Your task to perform on an android device: When is my next meeting? Image 0: 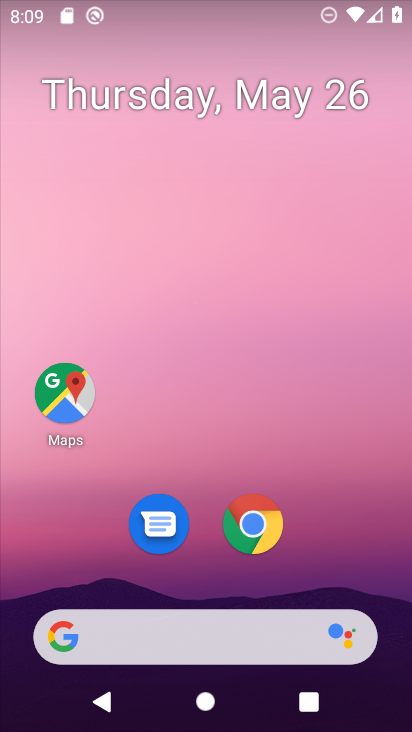
Step 0: drag from (194, 461) to (218, 16)
Your task to perform on an android device: When is my next meeting? Image 1: 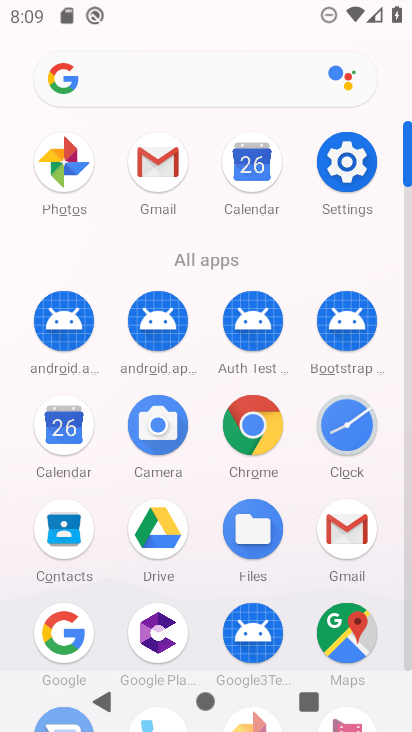
Step 1: click (255, 158)
Your task to perform on an android device: When is my next meeting? Image 2: 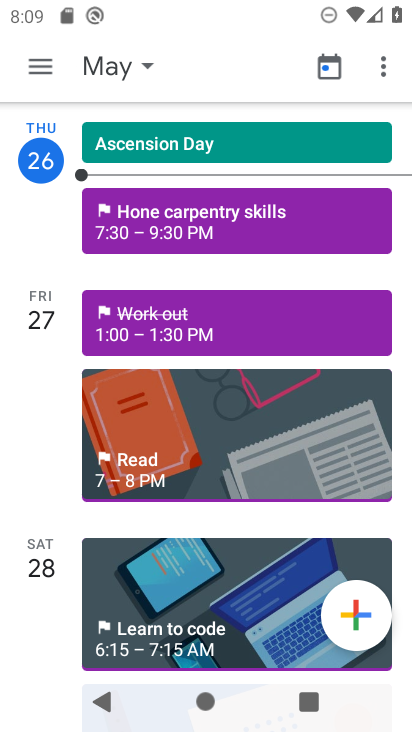
Step 2: task complete